Your task to perform on an android device: What's the weather going to be this weekend? Image 0: 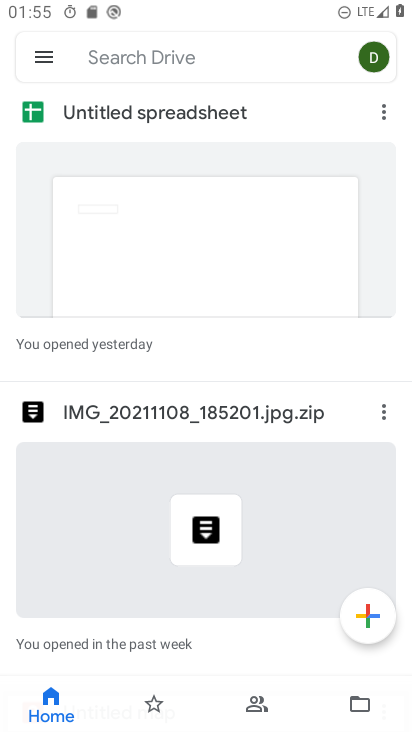
Step 0: press home button
Your task to perform on an android device: What's the weather going to be this weekend? Image 1: 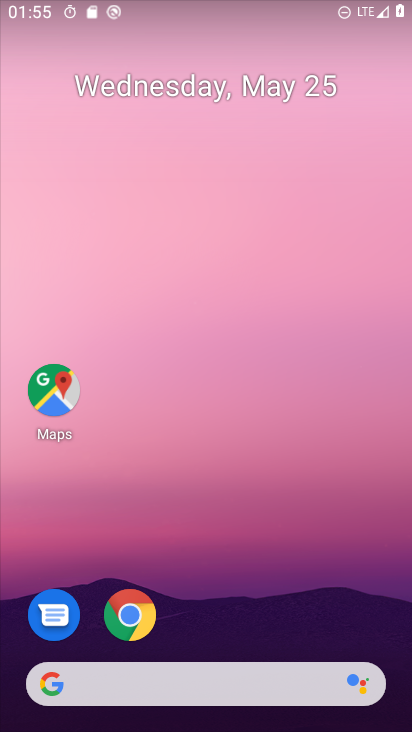
Step 1: drag from (216, 695) to (267, 71)
Your task to perform on an android device: What's the weather going to be this weekend? Image 2: 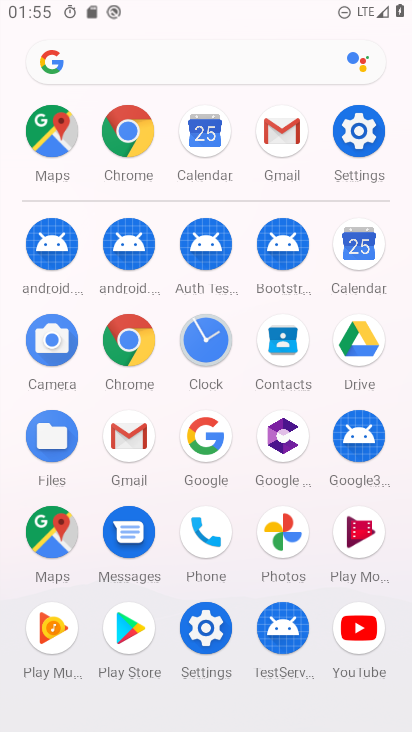
Step 2: click (104, 73)
Your task to perform on an android device: What's the weather going to be this weekend? Image 3: 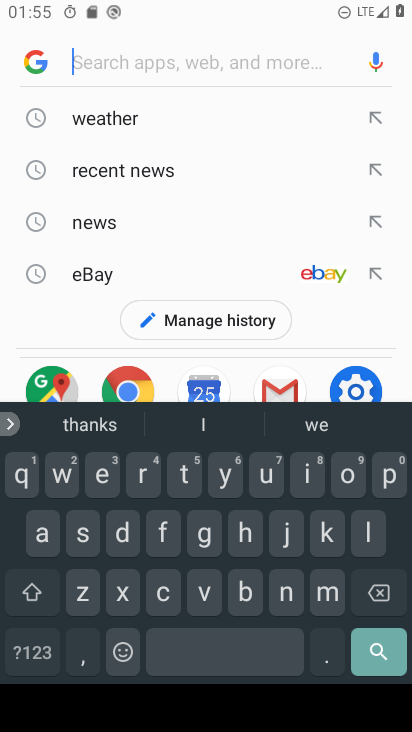
Step 3: click (86, 124)
Your task to perform on an android device: What's the weather going to be this weekend? Image 4: 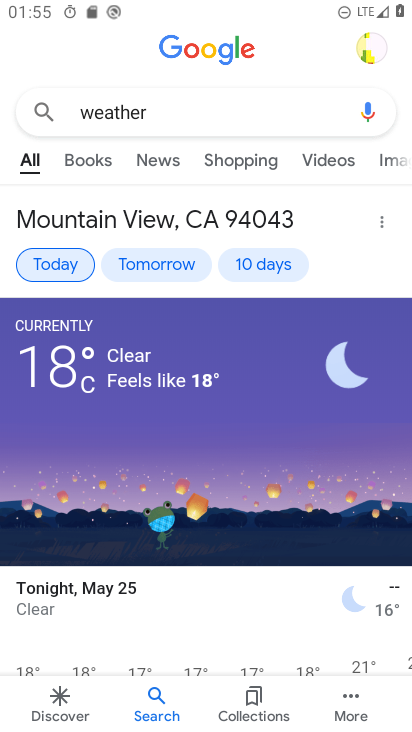
Step 4: click (259, 267)
Your task to perform on an android device: What's the weather going to be this weekend? Image 5: 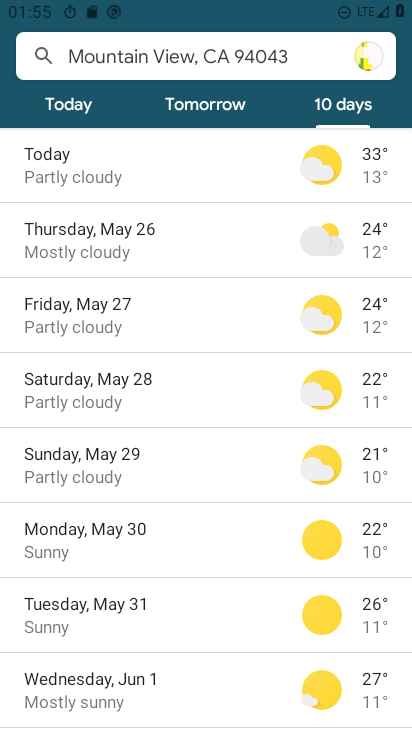
Step 5: task complete